Your task to perform on an android device: open chrome privacy settings Image 0: 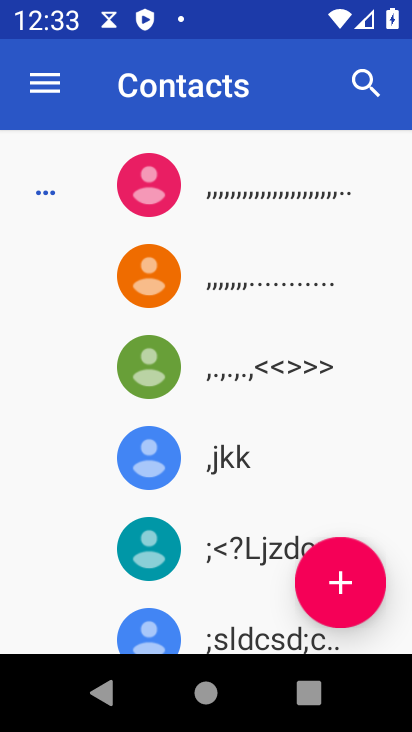
Step 0: press home button
Your task to perform on an android device: open chrome privacy settings Image 1: 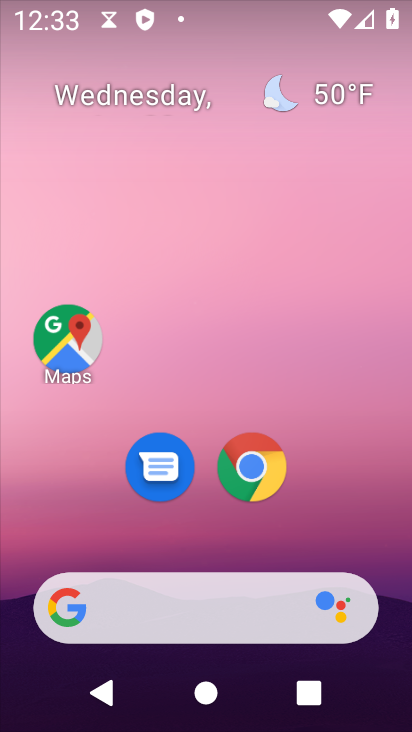
Step 1: click (263, 475)
Your task to perform on an android device: open chrome privacy settings Image 2: 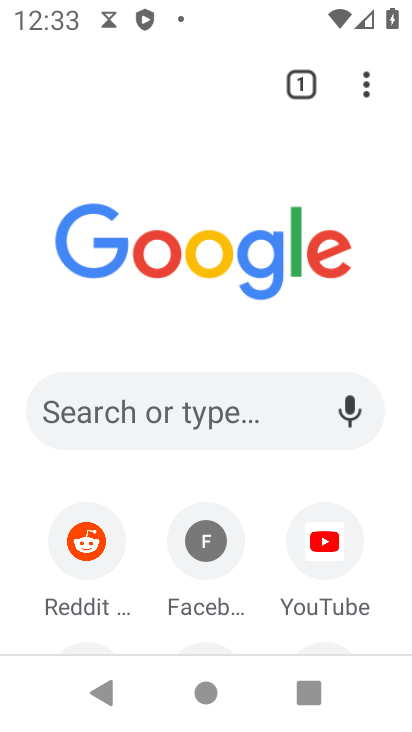
Step 2: click (363, 86)
Your task to perform on an android device: open chrome privacy settings Image 3: 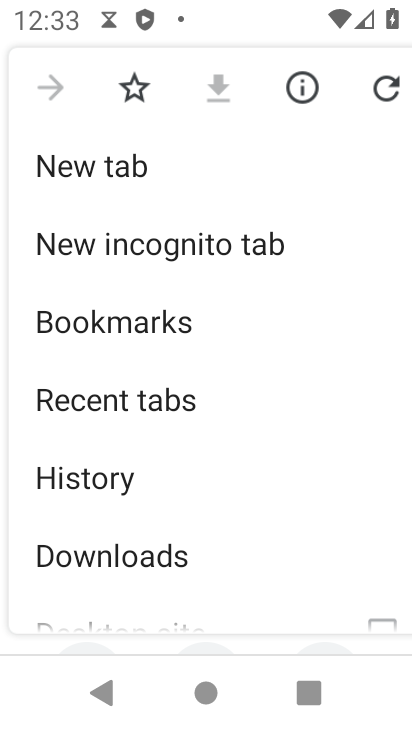
Step 3: drag from (117, 558) to (212, 174)
Your task to perform on an android device: open chrome privacy settings Image 4: 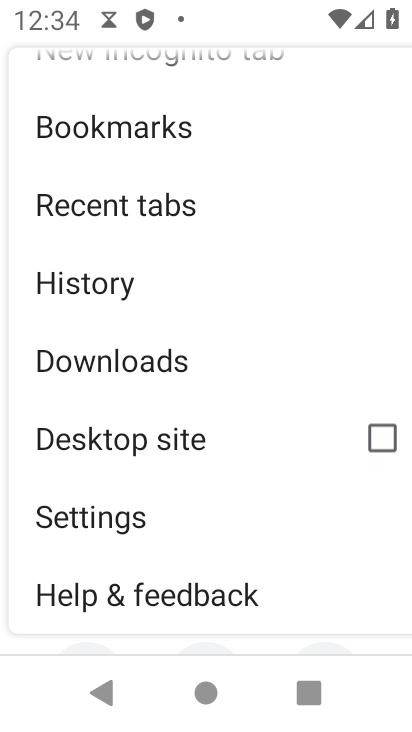
Step 4: drag from (158, 174) to (177, 25)
Your task to perform on an android device: open chrome privacy settings Image 5: 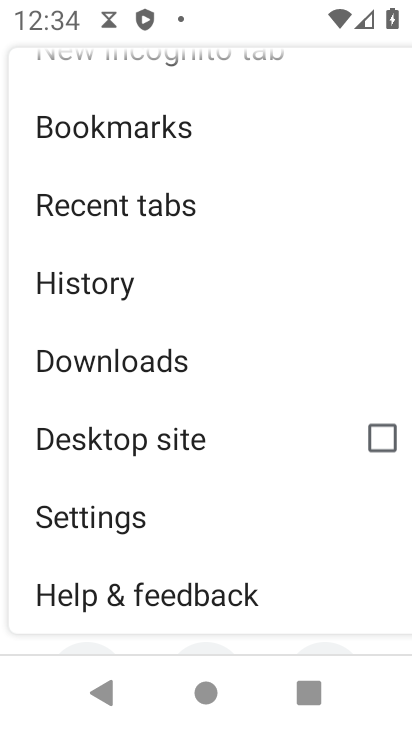
Step 5: click (101, 506)
Your task to perform on an android device: open chrome privacy settings Image 6: 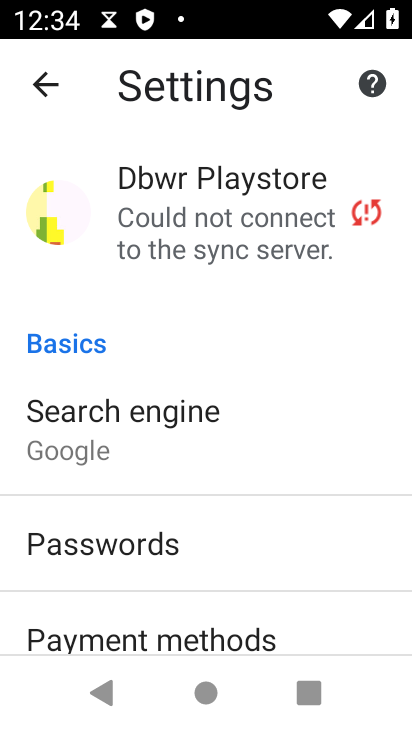
Step 6: drag from (174, 497) to (227, 228)
Your task to perform on an android device: open chrome privacy settings Image 7: 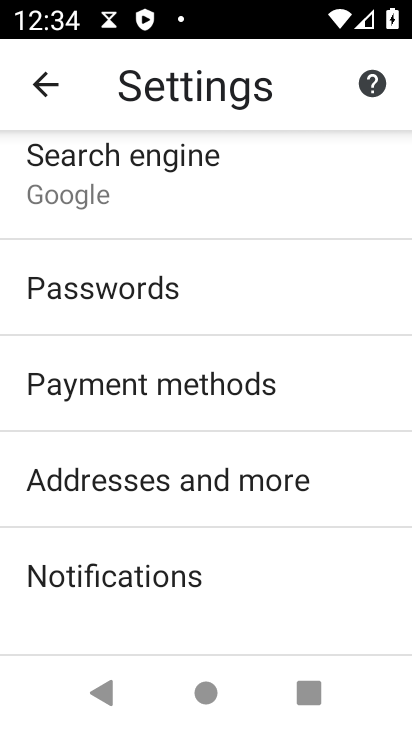
Step 7: drag from (175, 476) to (201, 199)
Your task to perform on an android device: open chrome privacy settings Image 8: 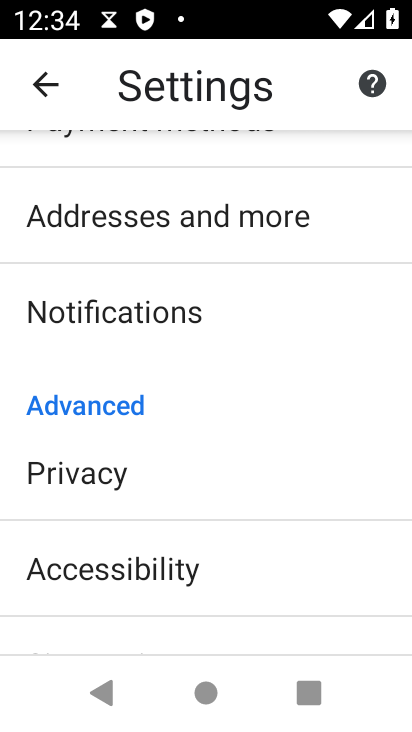
Step 8: click (81, 475)
Your task to perform on an android device: open chrome privacy settings Image 9: 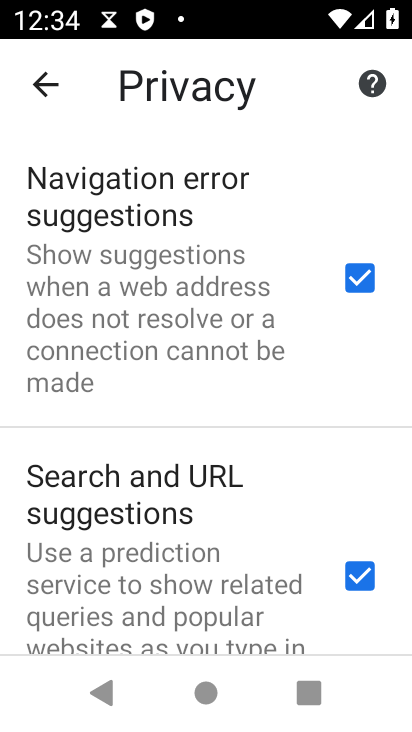
Step 9: task complete